Your task to perform on an android device: Show the shopping cart on walmart. Add beats solo 3 to the cart on walmart Image 0: 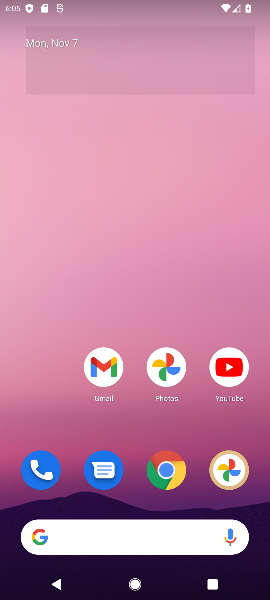
Step 0: click (179, 473)
Your task to perform on an android device: Show the shopping cart on walmart. Add beats solo 3 to the cart on walmart Image 1: 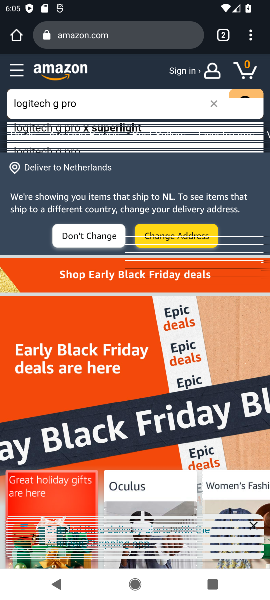
Step 1: click (170, 28)
Your task to perform on an android device: Show the shopping cart on walmart. Add beats solo 3 to the cart on walmart Image 2: 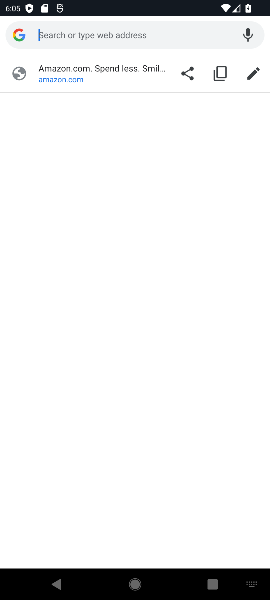
Step 2: type "walmart"
Your task to perform on an android device: Show the shopping cart on walmart. Add beats solo 3 to the cart on walmart Image 3: 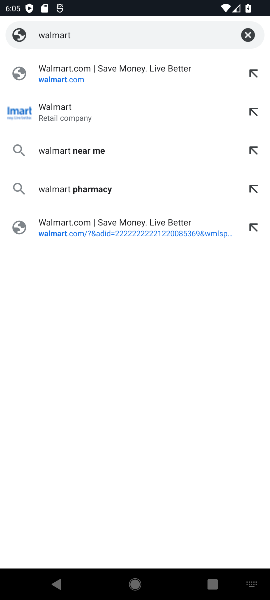
Step 3: click (73, 114)
Your task to perform on an android device: Show the shopping cart on walmart. Add beats solo 3 to the cart on walmart Image 4: 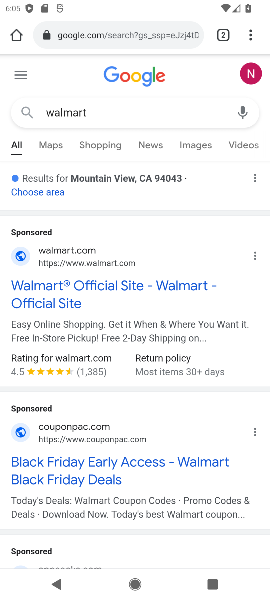
Step 4: click (85, 296)
Your task to perform on an android device: Show the shopping cart on walmart. Add beats solo 3 to the cart on walmart Image 5: 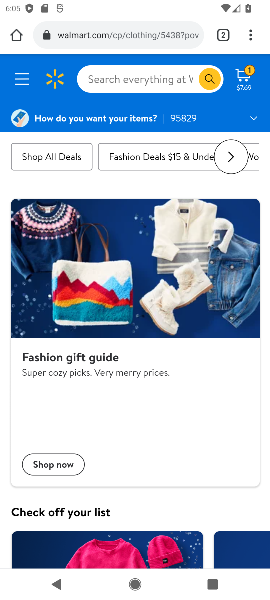
Step 5: click (235, 81)
Your task to perform on an android device: Show the shopping cart on walmart. Add beats solo 3 to the cart on walmart Image 6: 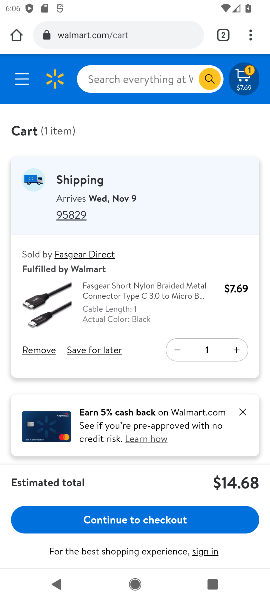
Step 6: click (124, 86)
Your task to perform on an android device: Show the shopping cart on walmart. Add beats solo 3 to the cart on walmart Image 7: 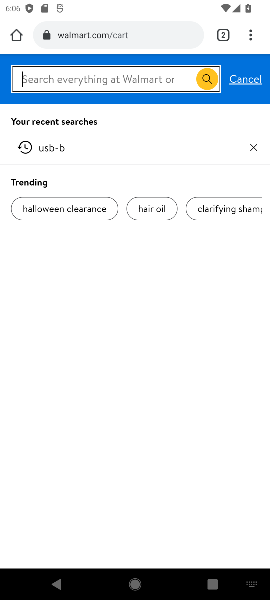
Step 7: type "beats solo 3 "
Your task to perform on an android device: Show the shopping cart on walmart. Add beats solo 3 to the cart on walmart Image 8: 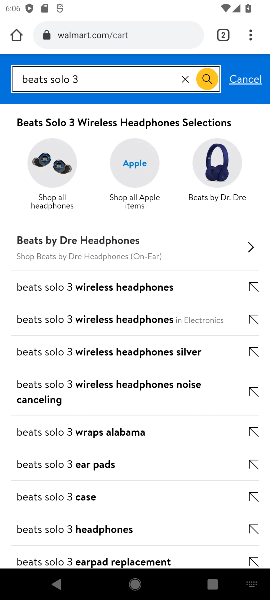
Step 8: click (207, 80)
Your task to perform on an android device: Show the shopping cart on walmart. Add beats solo 3 to the cart on walmart Image 9: 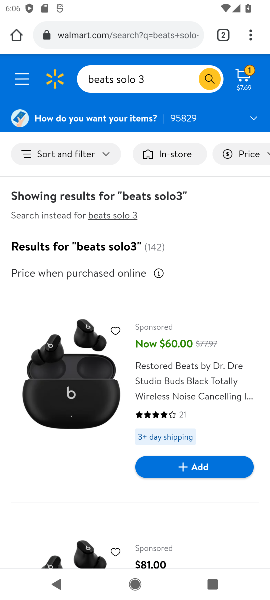
Step 9: click (229, 465)
Your task to perform on an android device: Show the shopping cart on walmart. Add beats solo 3 to the cart on walmart Image 10: 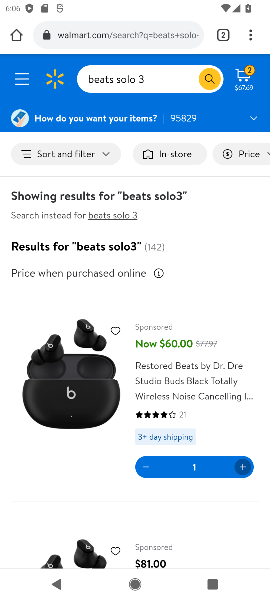
Step 10: task complete